Your task to perform on an android device: Open maps Image 0: 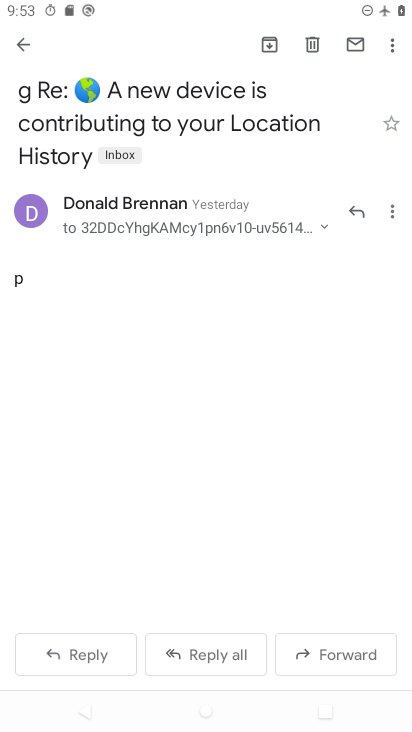
Step 0: press home button
Your task to perform on an android device: Open maps Image 1: 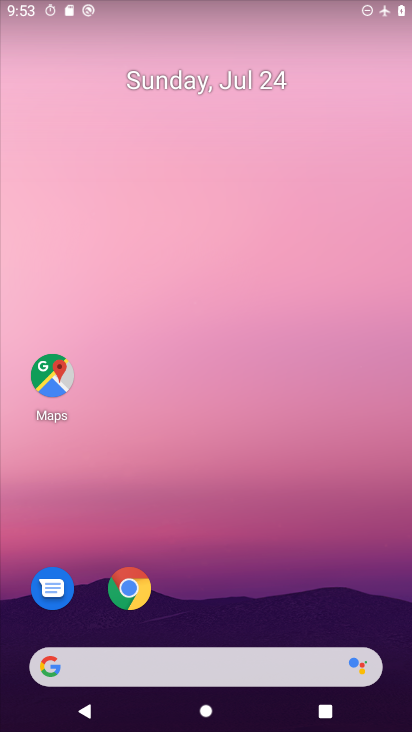
Step 1: click (54, 377)
Your task to perform on an android device: Open maps Image 2: 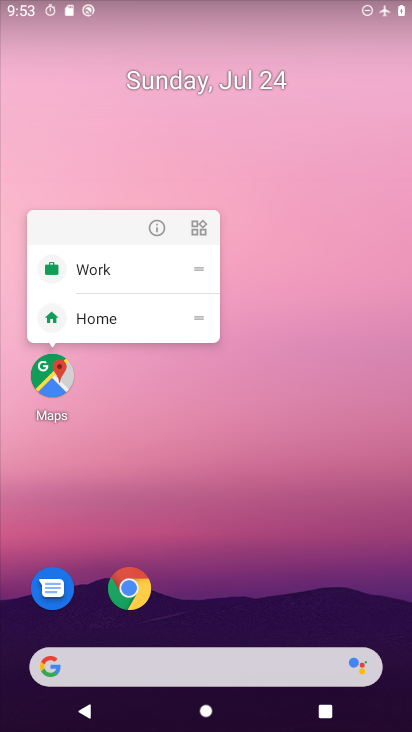
Step 2: click (54, 376)
Your task to perform on an android device: Open maps Image 3: 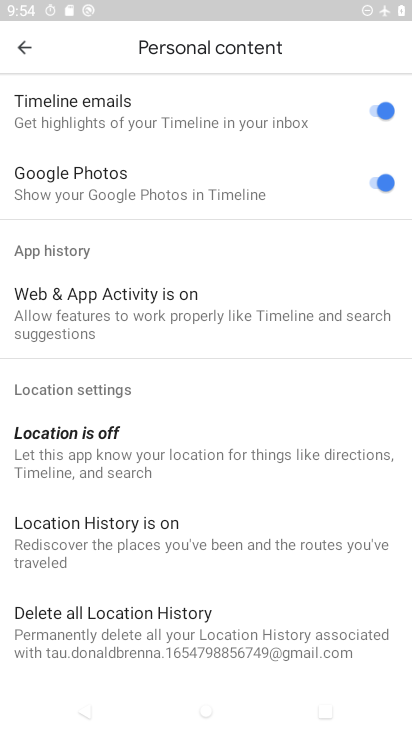
Step 3: task complete